Your task to perform on an android device: Is it going to rain tomorrow? Image 0: 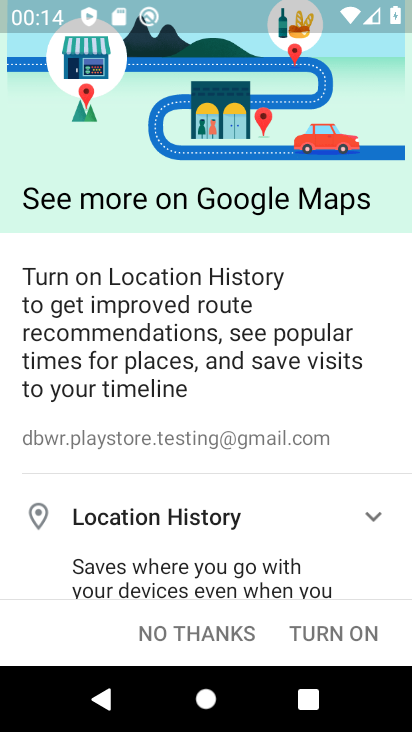
Step 0: press home button
Your task to perform on an android device: Is it going to rain tomorrow? Image 1: 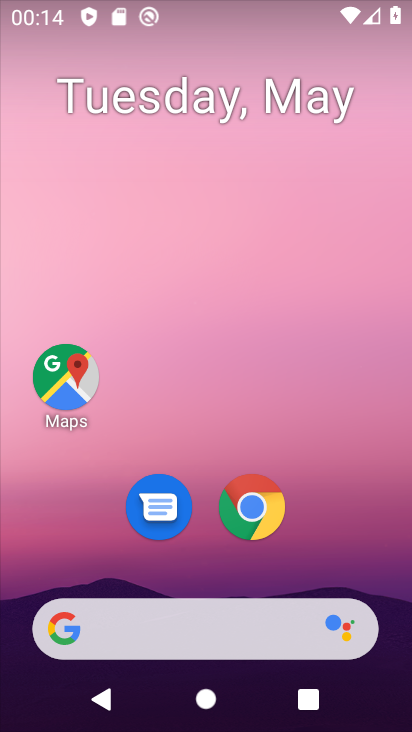
Step 1: drag from (134, 547) to (178, 213)
Your task to perform on an android device: Is it going to rain tomorrow? Image 2: 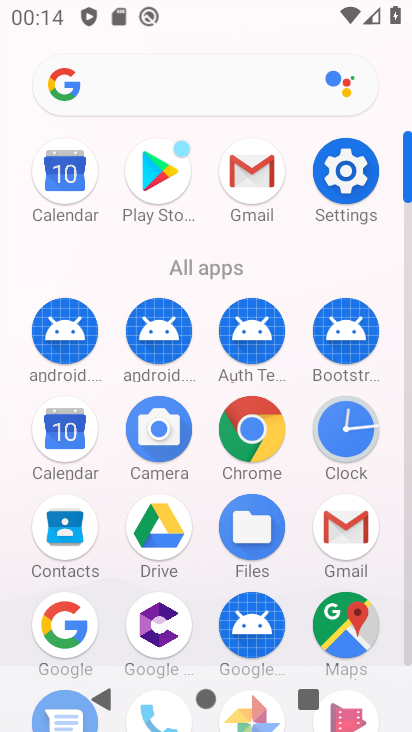
Step 2: click (72, 625)
Your task to perform on an android device: Is it going to rain tomorrow? Image 3: 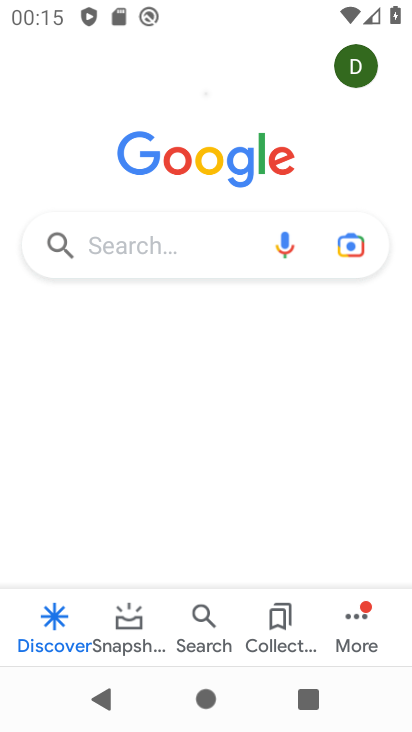
Step 3: click (118, 251)
Your task to perform on an android device: Is it going to rain tomorrow? Image 4: 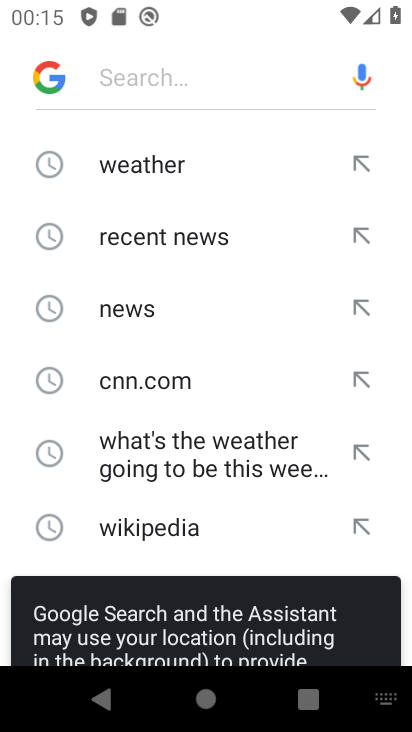
Step 4: drag from (148, 530) to (201, 243)
Your task to perform on an android device: Is it going to rain tomorrow? Image 5: 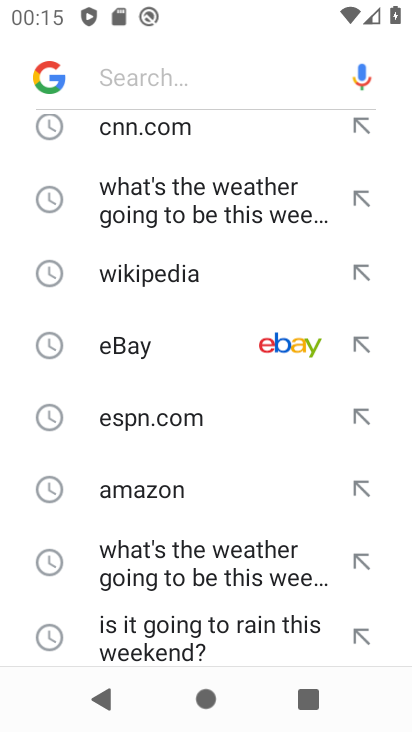
Step 5: drag from (177, 533) to (220, 228)
Your task to perform on an android device: Is it going to rain tomorrow? Image 6: 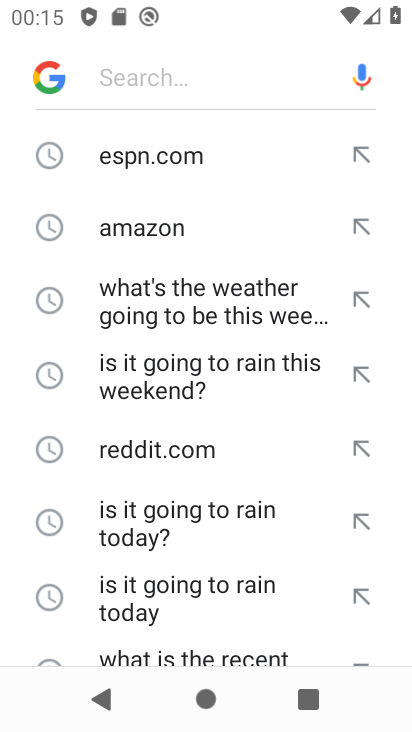
Step 6: drag from (193, 587) to (210, 354)
Your task to perform on an android device: Is it going to rain tomorrow? Image 7: 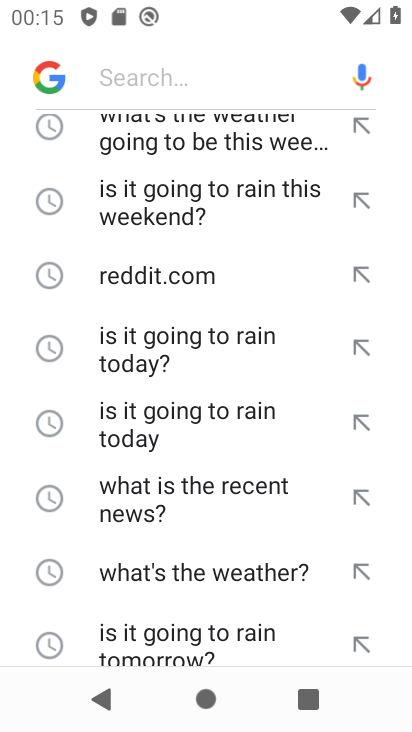
Step 7: click (100, 651)
Your task to perform on an android device: Is it going to rain tomorrow? Image 8: 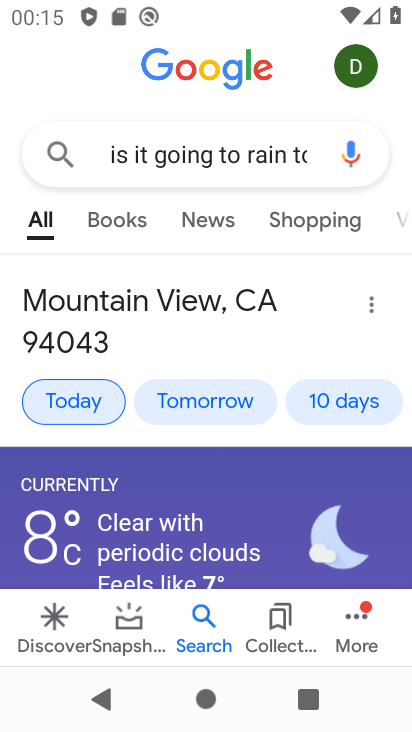
Step 8: drag from (159, 542) to (174, 220)
Your task to perform on an android device: Is it going to rain tomorrow? Image 9: 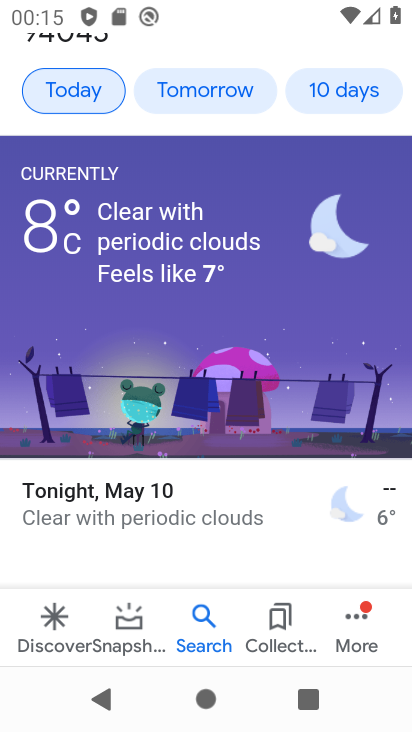
Step 9: drag from (126, 553) to (158, 290)
Your task to perform on an android device: Is it going to rain tomorrow? Image 10: 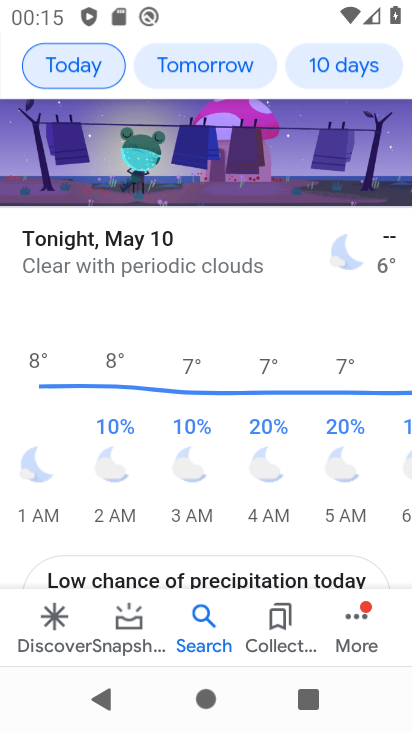
Step 10: drag from (249, 170) to (267, 490)
Your task to perform on an android device: Is it going to rain tomorrow? Image 11: 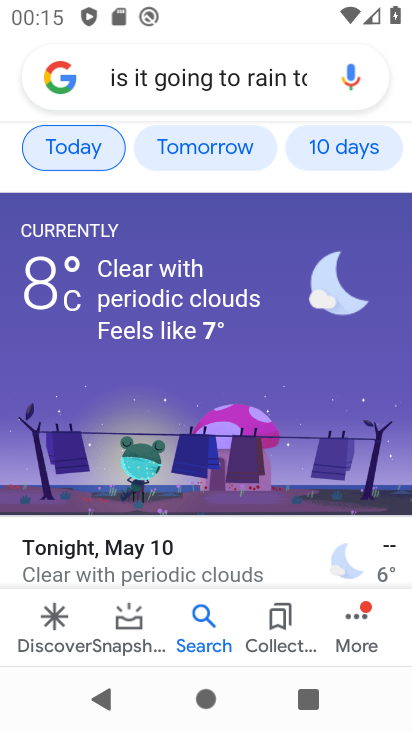
Step 11: click (204, 141)
Your task to perform on an android device: Is it going to rain tomorrow? Image 12: 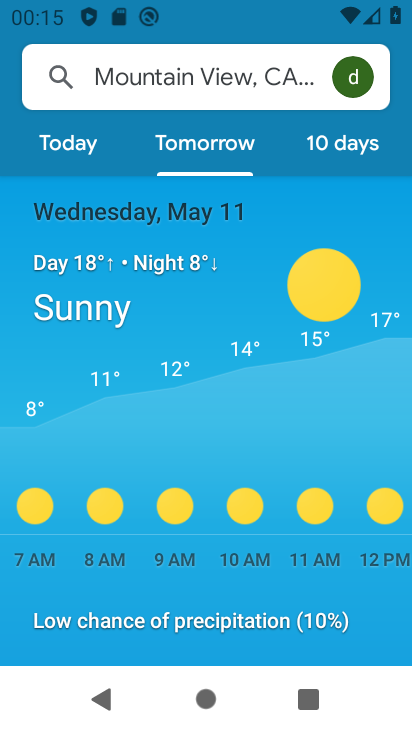
Step 12: task complete